Your task to perform on an android device: toggle sleep mode Image 0: 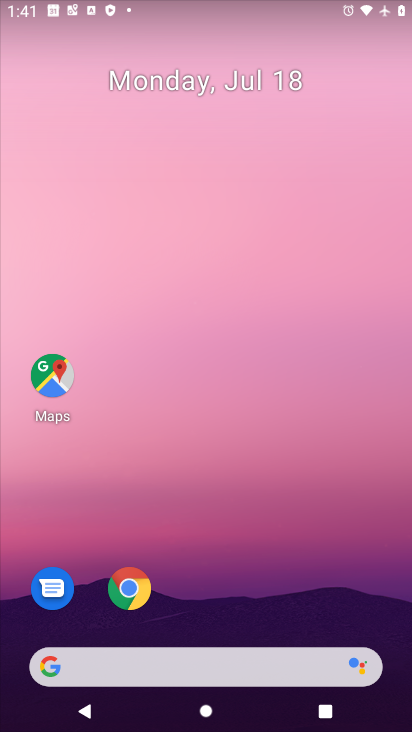
Step 0: drag from (237, 670) to (287, 197)
Your task to perform on an android device: toggle sleep mode Image 1: 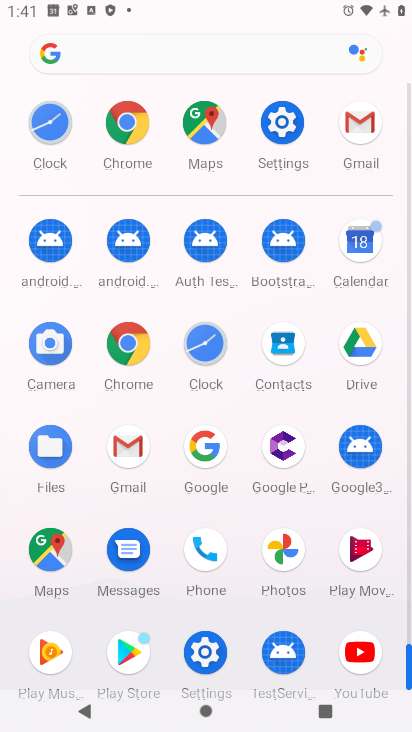
Step 1: click (284, 139)
Your task to perform on an android device: toggle sleep mode Image 2: 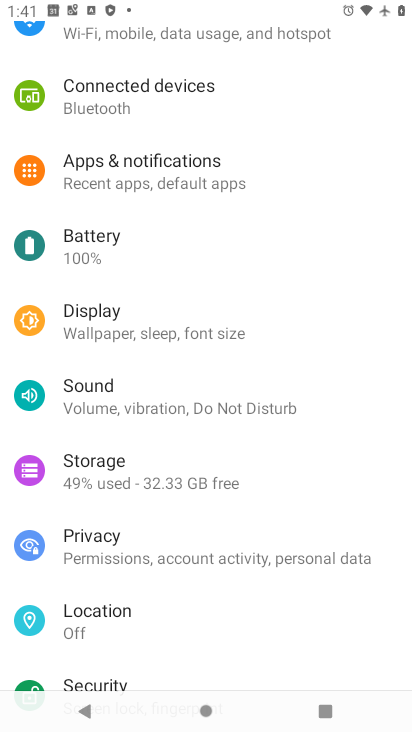
Step 2: click (146, 329)
Your task to perform on an android device: toggle sleep mode Image 3: 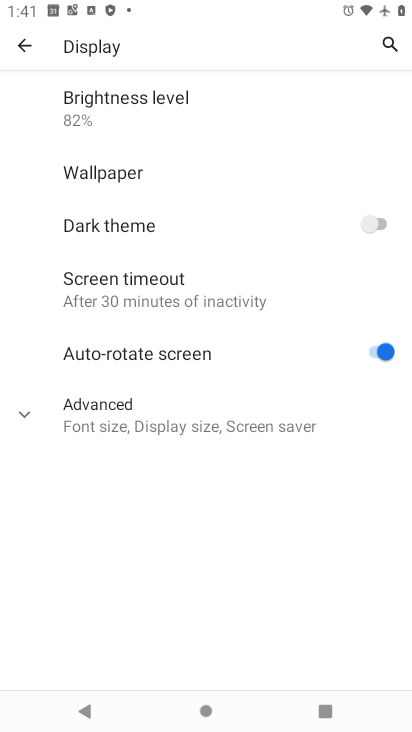
Step 3: click (196, 420)
Your task to perform on an android device: toggle sleep mode Image 4: 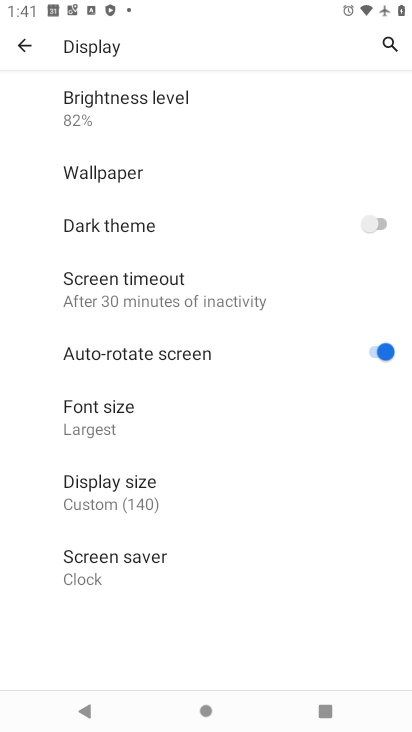
Step 4: task complete